Your task to perform on an android device: turn off location Image 0: 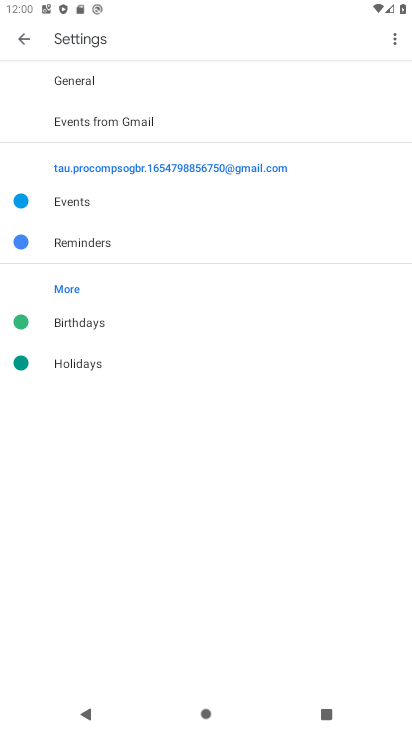
Step 0: drag from (190, 11) to (222, 585)
Your task to perform on an android device: turn off location Image 1: 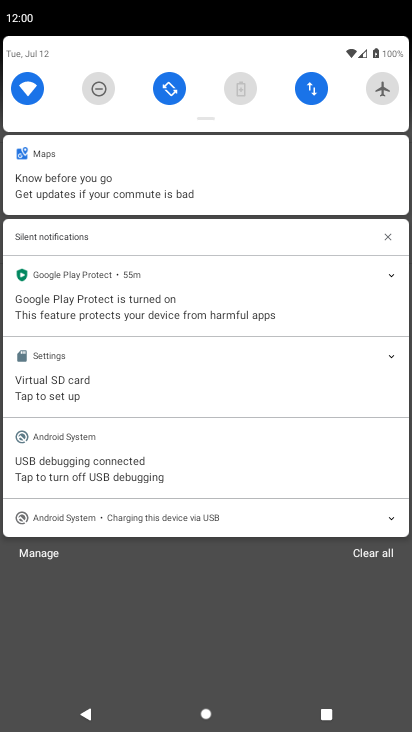
Step 1: drag from (198, 58) to (153, 587)
Your task to perform on an android device: turn off location Image 2: 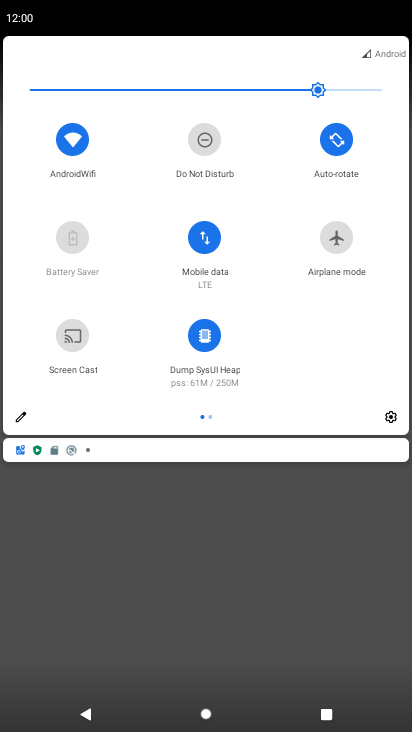
Step 2: drag from (215, 227) to (175, 522)
Your task to perform on an android device: turn off location Image 3: 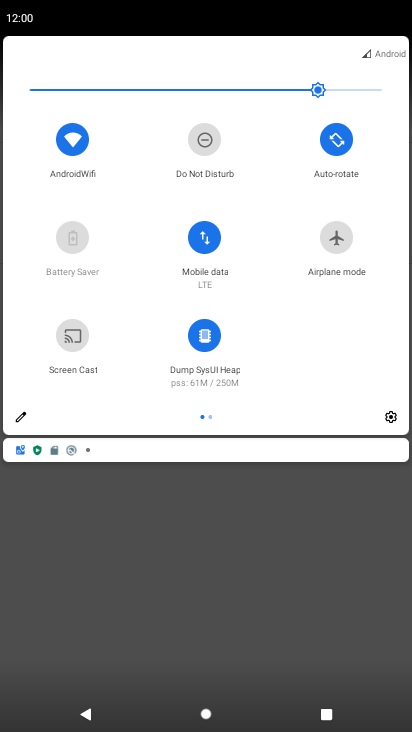
Step 3: click (387, 412)
Your task to perform on an android device: turn off location Image 4: 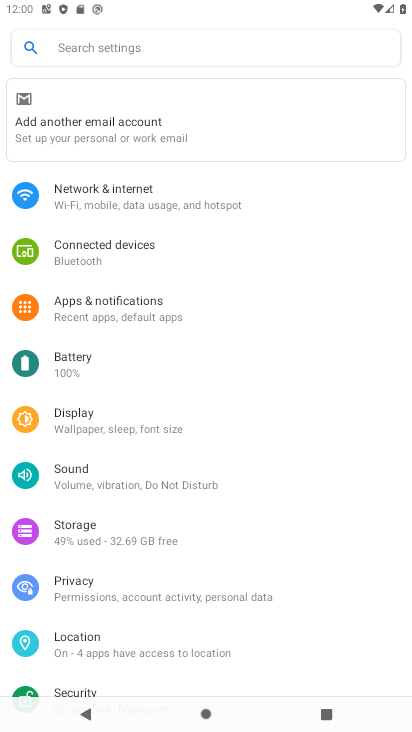
Step 4: click (116, 635)
Your task to perform on an android device: turn off location Image 5: 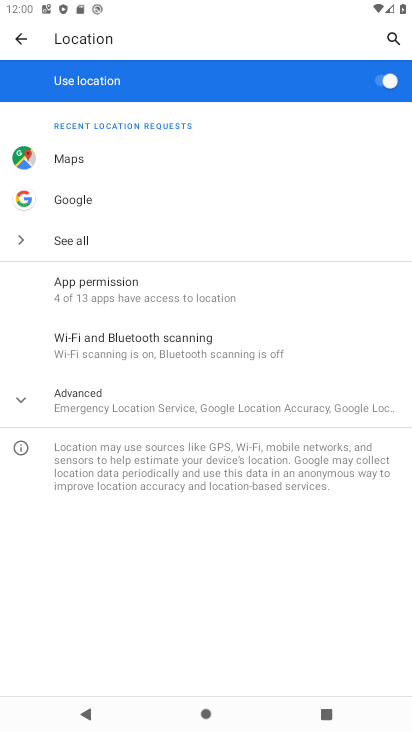
Step 5: click (389, 77)
Your task to perform on an android device: turn off location Image 6: 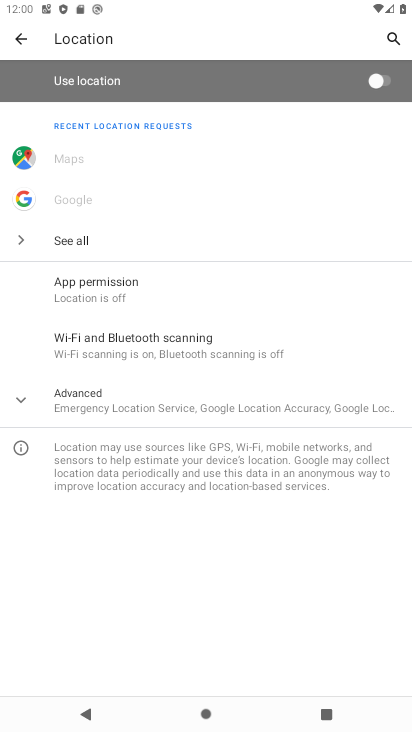
Step 6: task complete